Your task to perform on an android device: turn off location Image 0: 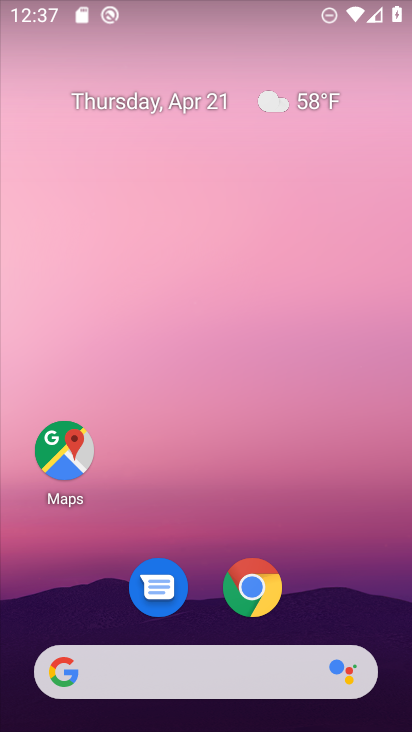
Step 0: click (321, 368)
Your task to perform on an android device: turn off location Image 1: 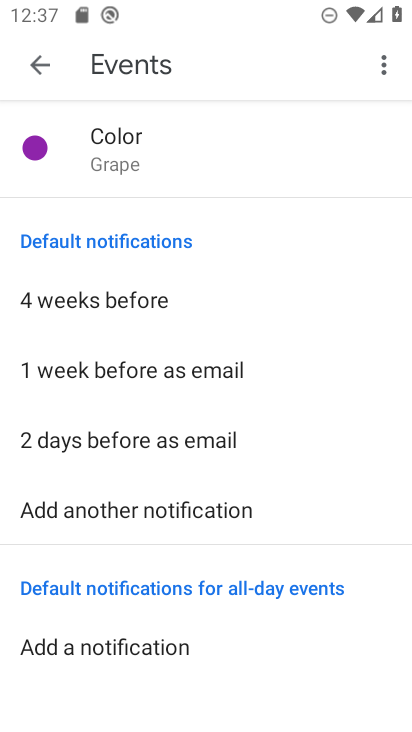
Step 1: press home button
Your task to perform on an android device: turn off location Image 2: 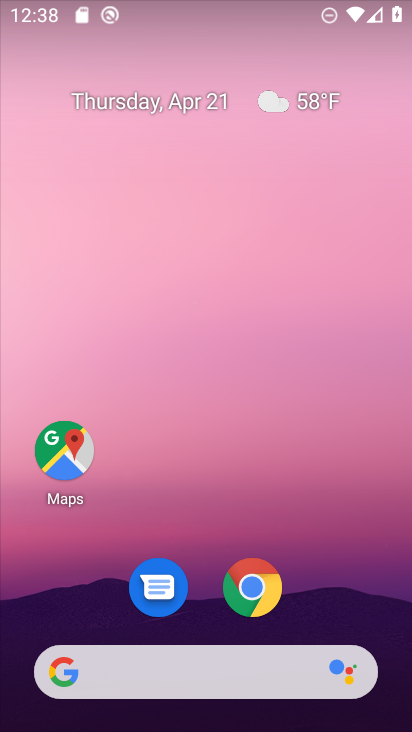
Step 2: drag from (201, 525) to (412, 226)
Your task to perform on an android device: turn off location Image 3: 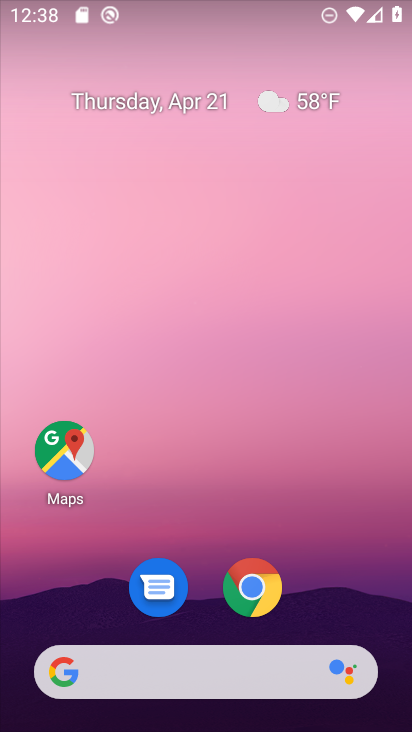
Step 3: drag from (218, 560) to (403, 259)
Your task to perform on an android device: turn off location Image 4: 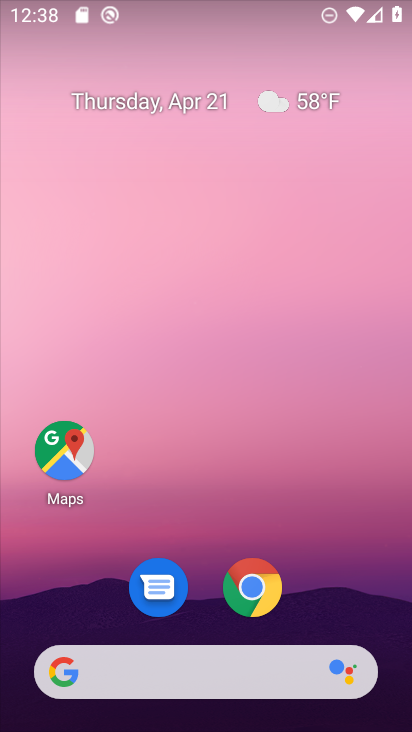
Step 4: drag from (195, 615) to (317, 3)
Your task to perform on an android device: turn off location Image 5: 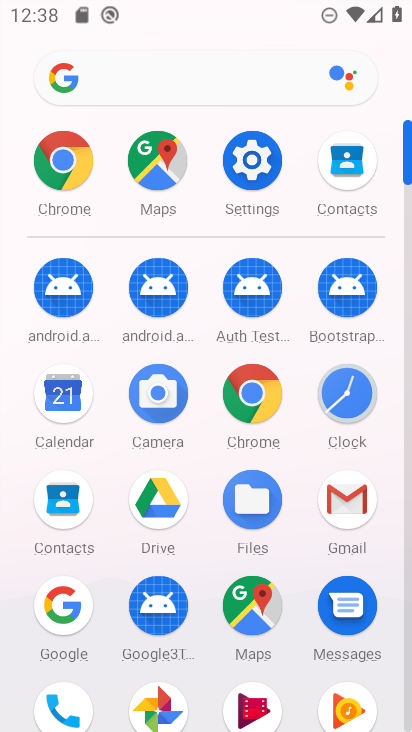
Step 5: click (258, 193)
Your task to perform on an android device: turn off location Image 6: 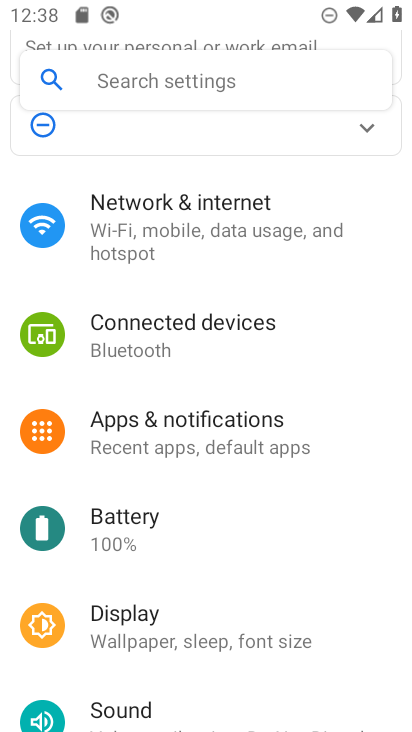
Step 6: drag from (163, 653) to (280, 130)
Your task to perform on an android device: turn off location Image 7: 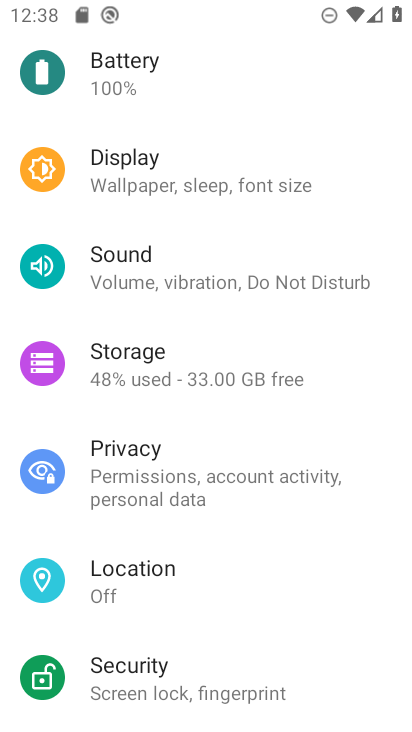
Step 7: click (108, 589)
Your task to perform on an android device: turn off location Image 8: 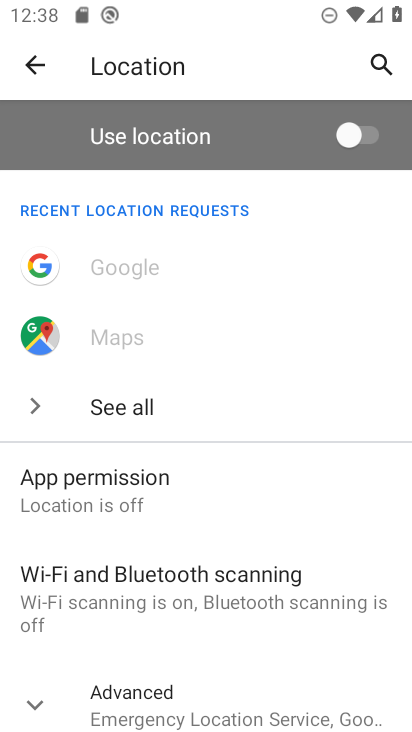
Step 8: task complete